Your task to perform on an android device: Go to location settings Image 0: 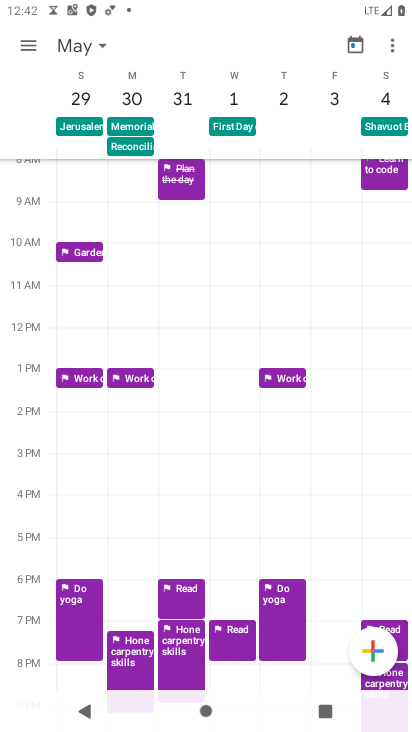
Step 0: press home button
Your task to perform on an android device: Go to location settings Image 1: 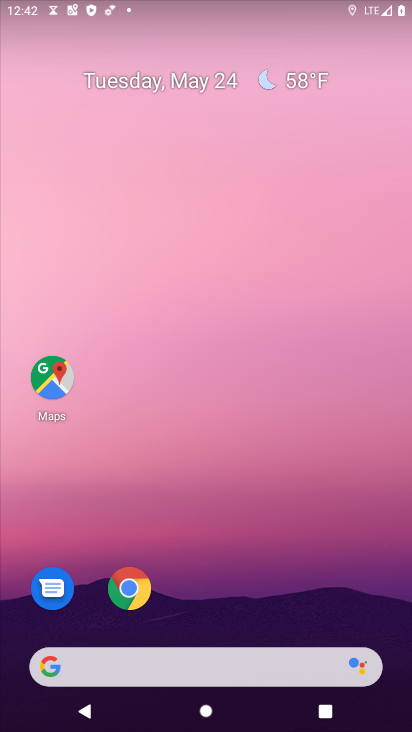
Step 1: drag from (216, 630) to (93, 62)
Your task to perform on an android device: Go to location settings Image 2: 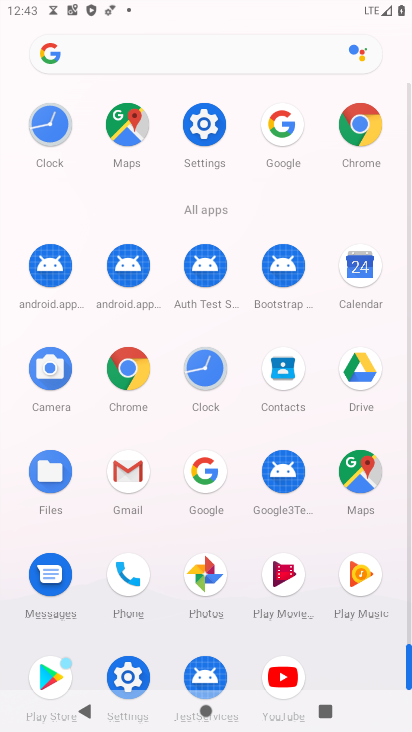
Step 2: click (199, 133)
Your task to perform on an android device: Go to location settings Image 3: 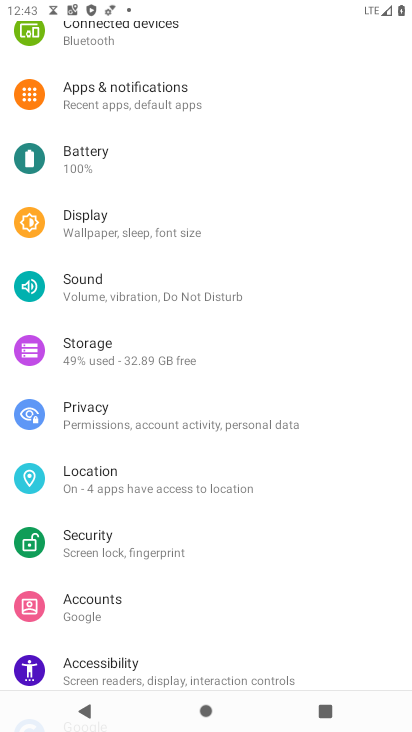
Step 3: click (105, 493)
Your task to perform on an android device: Go to location settings Image 4: 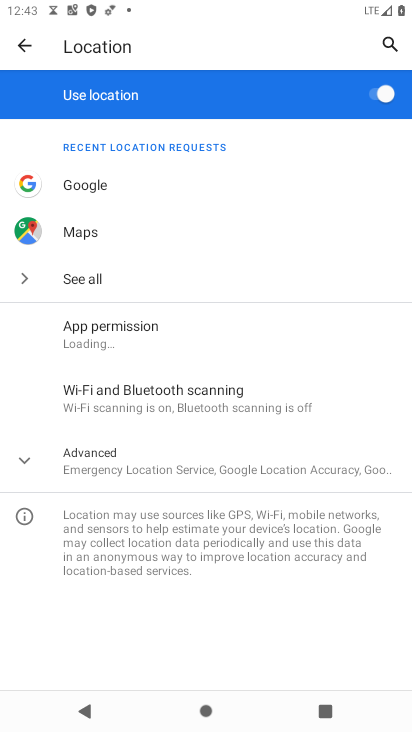
Step 4: task complete